Your task to perform on an android device: Go to Yahoo.com Image 0: 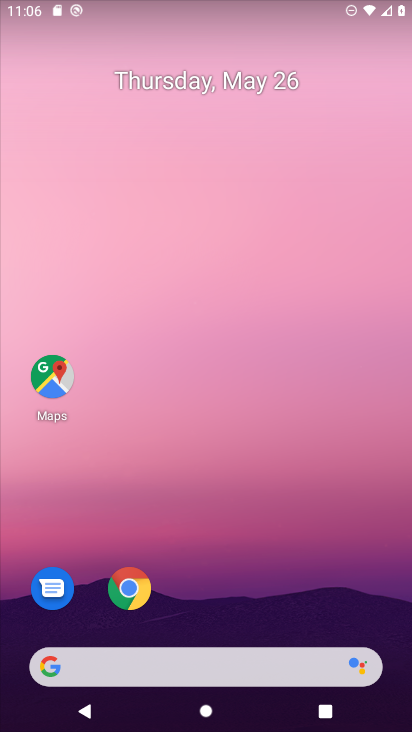
Step 0: click (131, 589)
Your task to perform on an android device: Go to Yahoo.com Image 1: 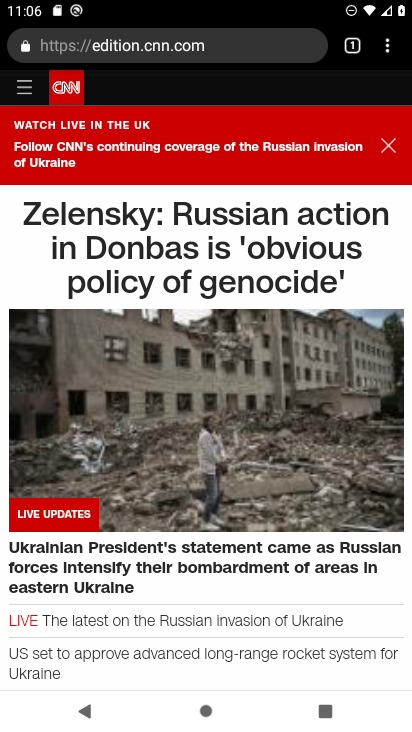
Step 1: click (270, 54)
Your task to perform on an android device: Go to Yahoo.com Image 2: 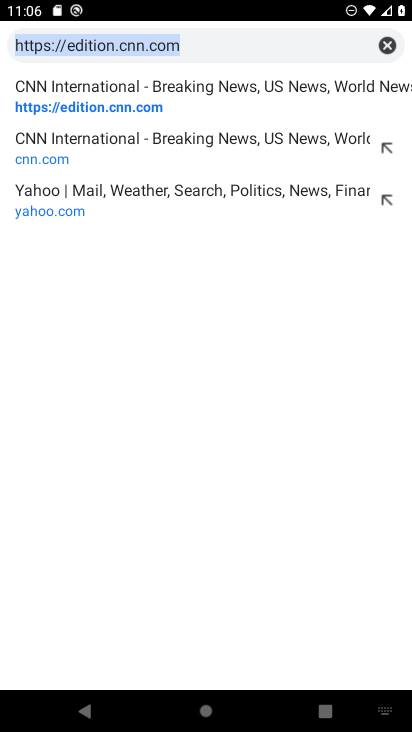
Step 2: click (383, 39)
Your task to perform on an android device: Go to Yahoo.com Image 3: 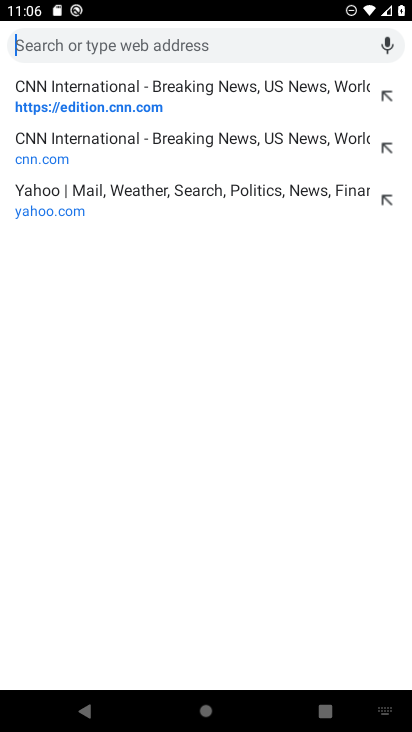
Step 3: type "yahoo.com"
Your task to perform on an android device: Go to Yahoo.com Image 4: 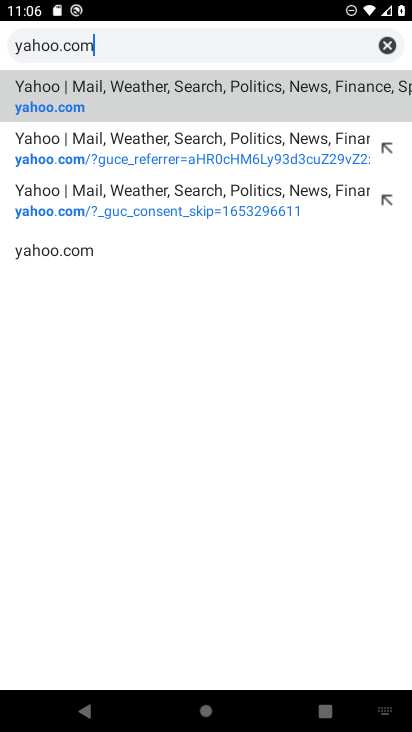
Step 4: click (74, 84)
Your task to perform on an android device: Go to Yahoo.com Image 5: 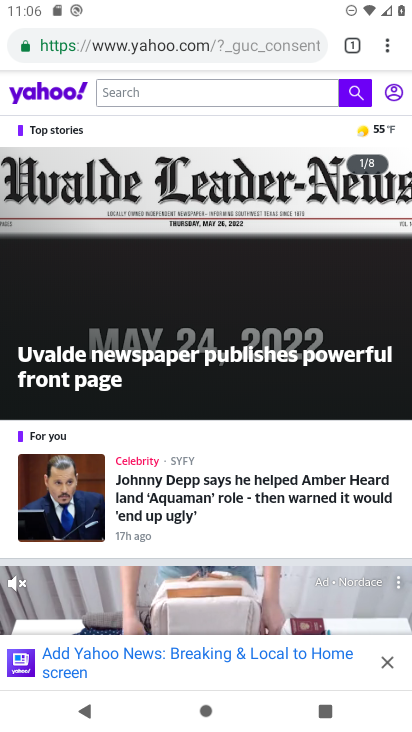
Step 5: task complete